Your task to perform on an android device: check the backup settings in the google photos Image 0: 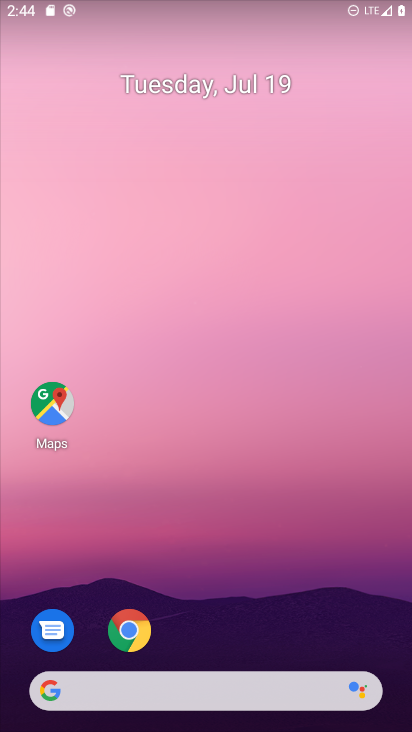
Step 0: drag from (385, 639) to (317, 178)
Your task to perform on an android device: check the backup settings in the google photos Image 1: 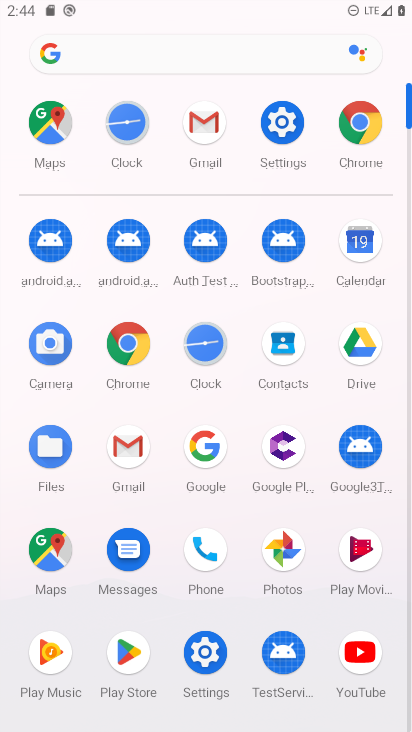
Step 1: click (284, 549)
Your task to perform on an android device: check the backup settings in the google photos Image 2: 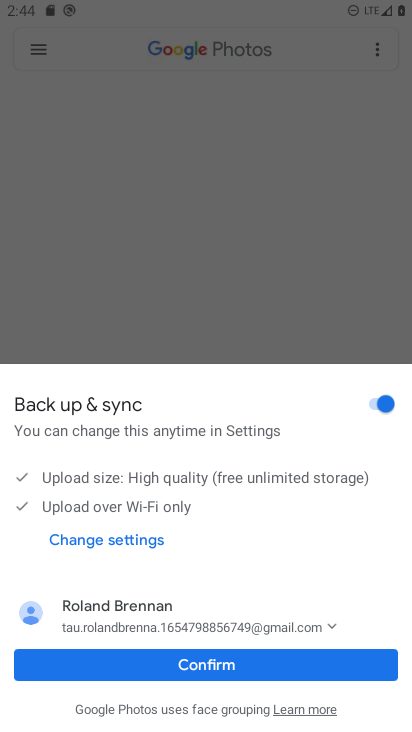
Step 2: click (204, 663)
Your task to perform on an android device: check the backup settings in the google photos Image 3: 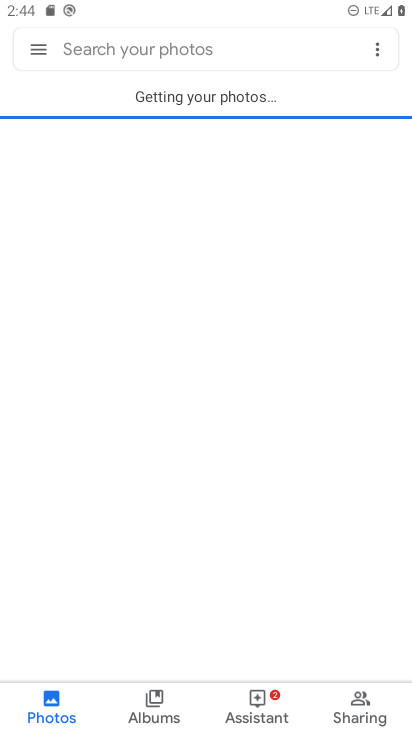
Step 3: click (39, 48)
Your task to perform on an android device: check the backup settings in the google photos Image 4: 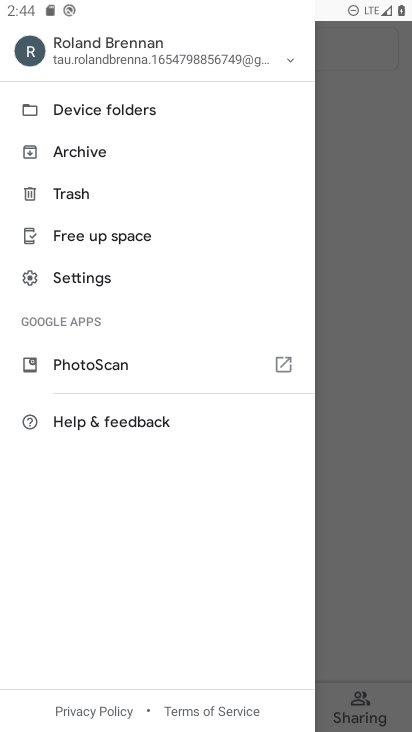
Step 4: click (73, 273)
Your task to perform on an android device: check the backup settings in the google photos Image 5: 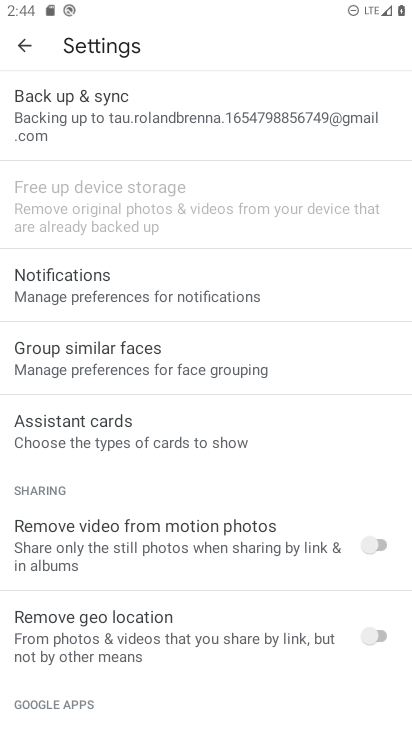
Step 5: click (108, 104)
Your task to perform on an android device: check the backup settings in the google photos Image 6: 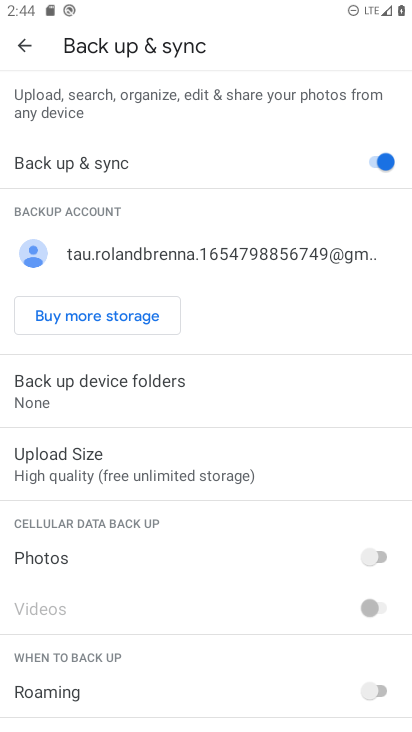
Step 6: task complete